Your task to perform on an android device: Open Maps and search for coffee Image 0: 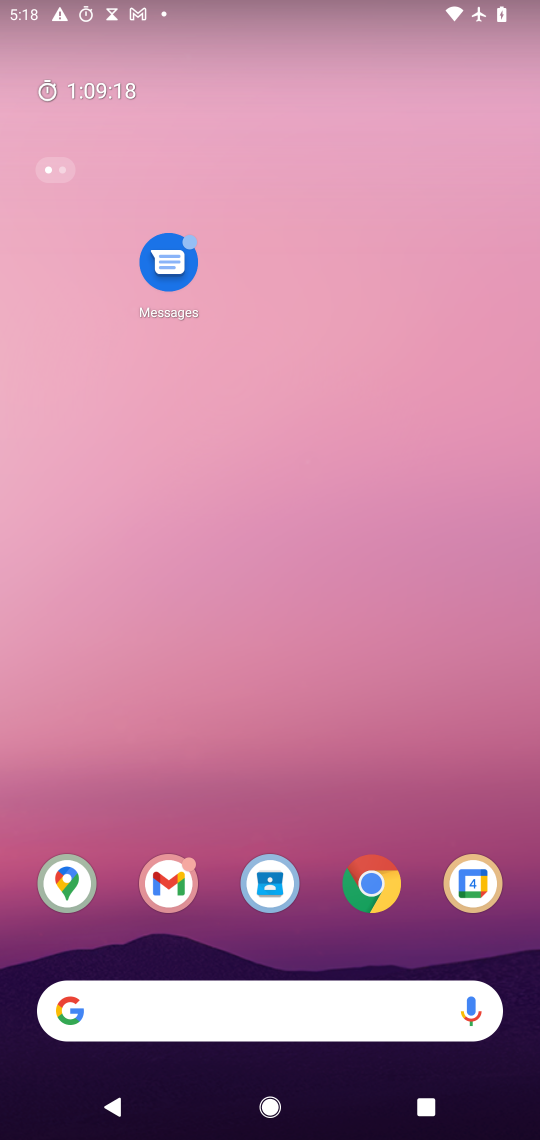
Step 0: drag from (304, 968) to (310, 99)
Your task to perform on an android device: Open Maps and search for coffee Image 1: 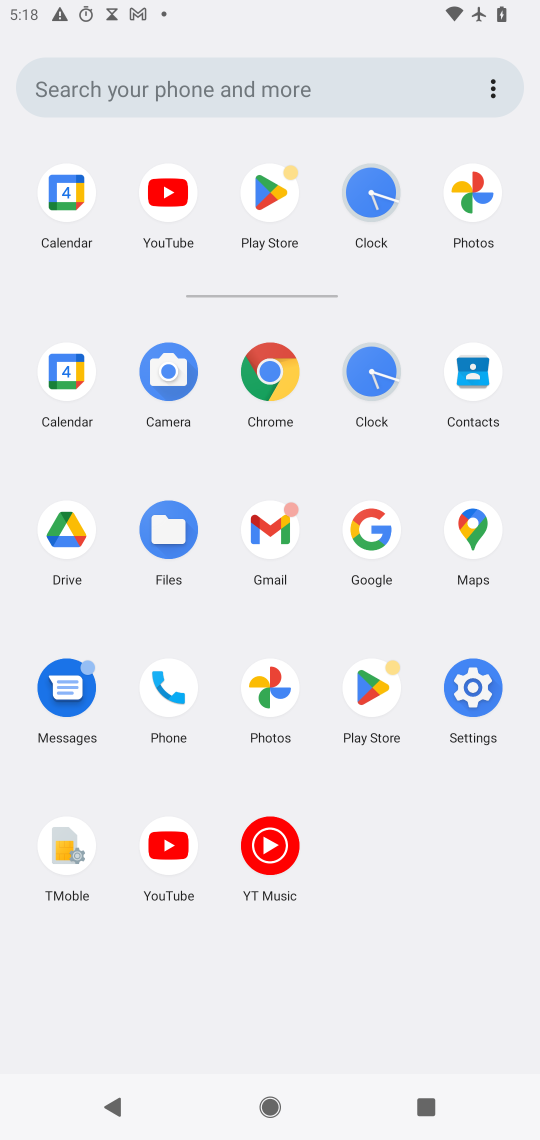
Step 1: click (469, 526)
Your task to perform on an android device: Open Maps and search for coffee Image 2: 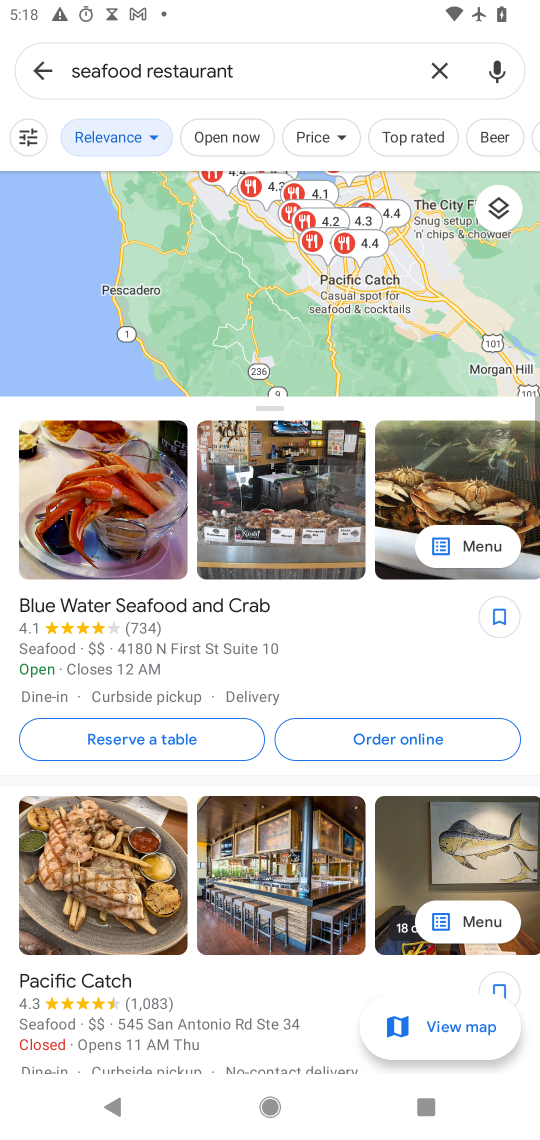
Step 2: click (436, 69)
Your task to perform on an android device: Open Maps and search for coffee Image 3: 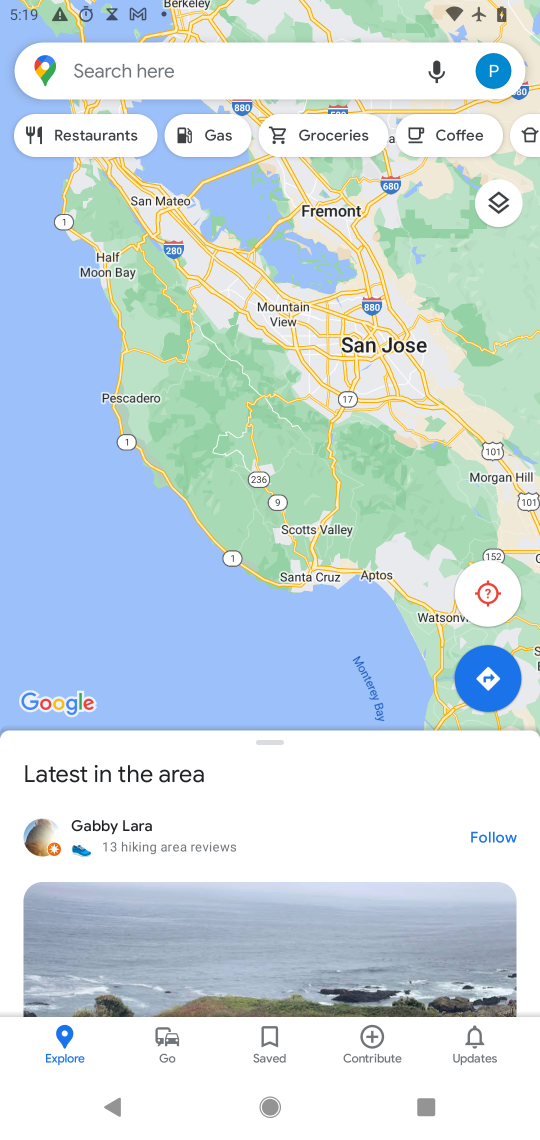
Step 3: click (251, 72)
Your task to perform on an android device: Open Maps and search for coffee Image 4: 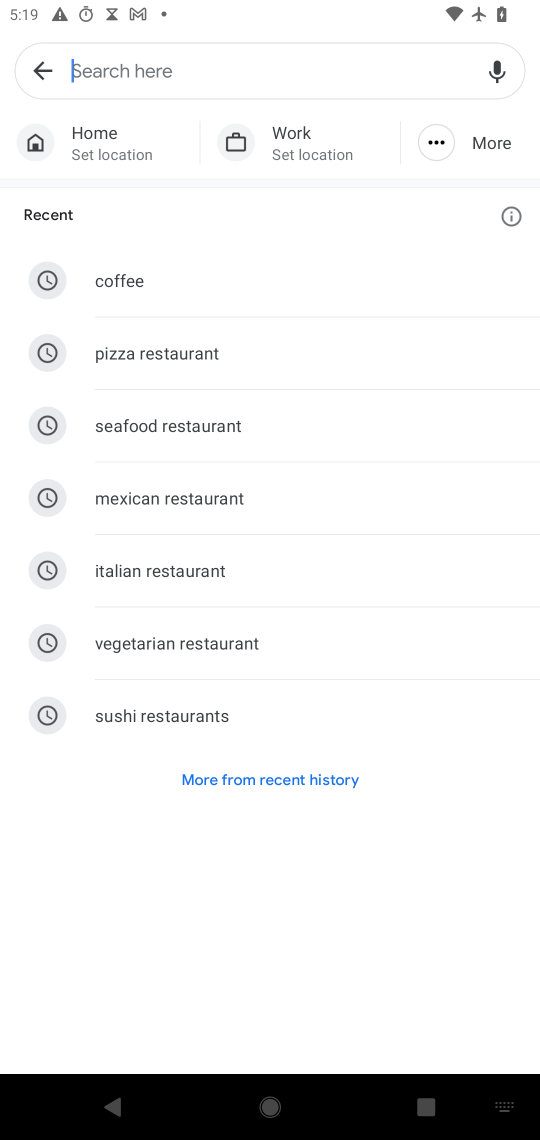
Step 4: type "coffee"
Your task to perform on an android device: Open Maps and search for coffee Image 5: 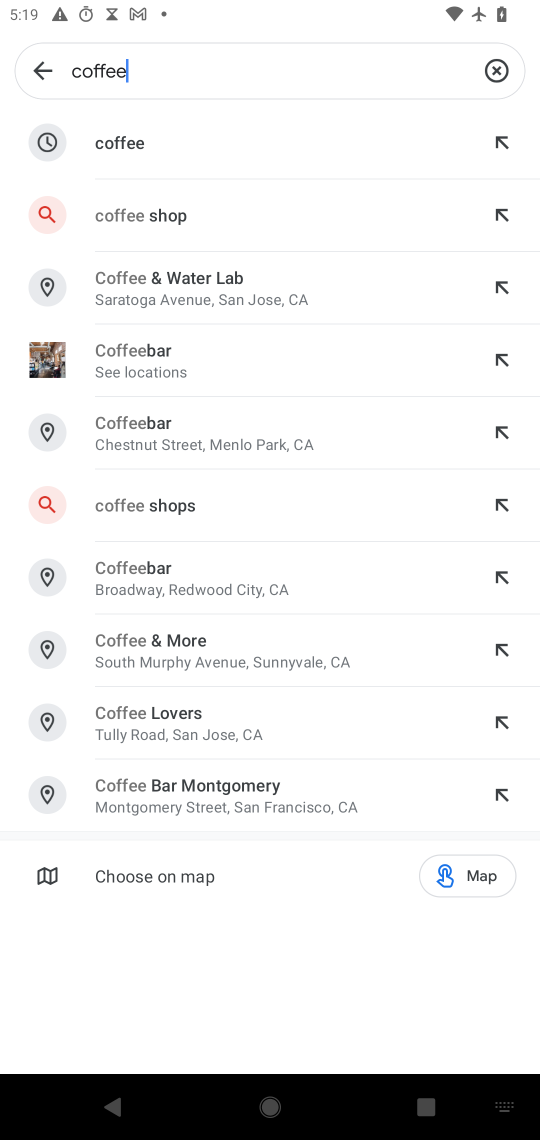
Step 5: click (106, 139)
Your task to perform on an android device: Open Maps and search for coffee Image 6: 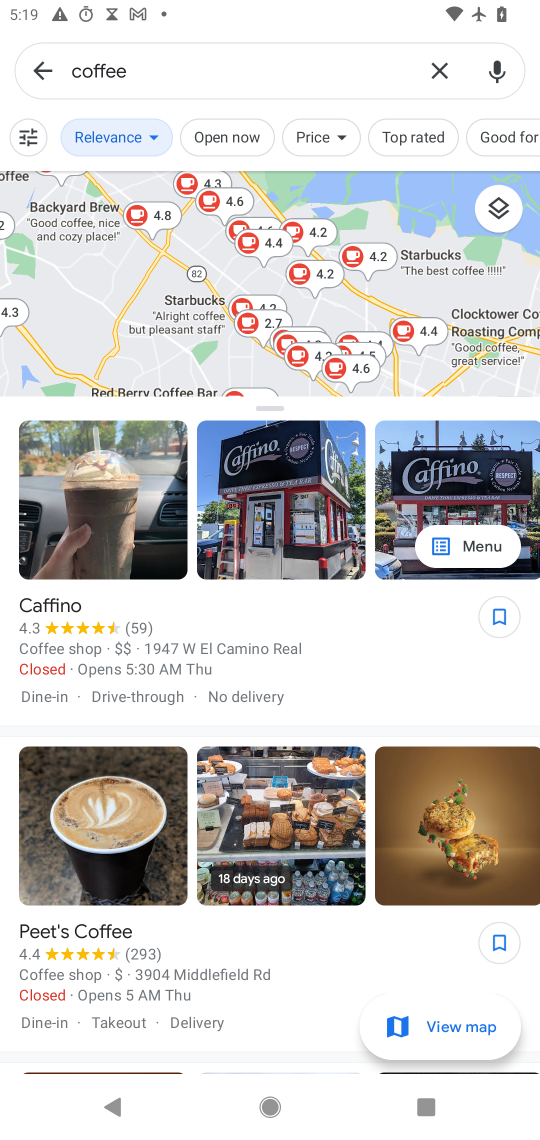
Step 6: task complete